Your task to perform on an android device: search for starred emails in the gmail app Image 0: 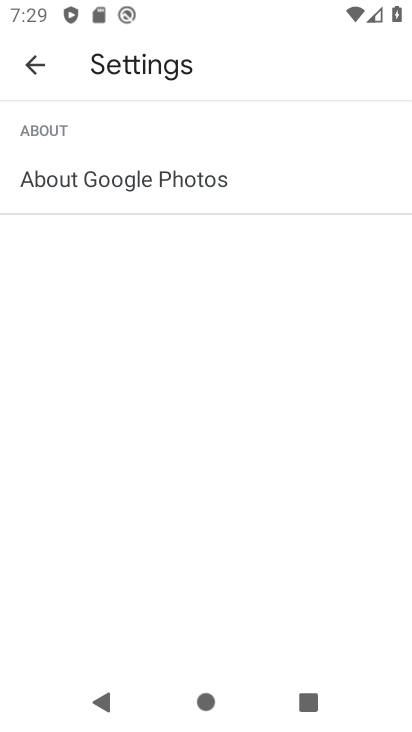
Step 0: press home button
Your task to perform on an android device: search for starred emails in the gmail app Image 1: 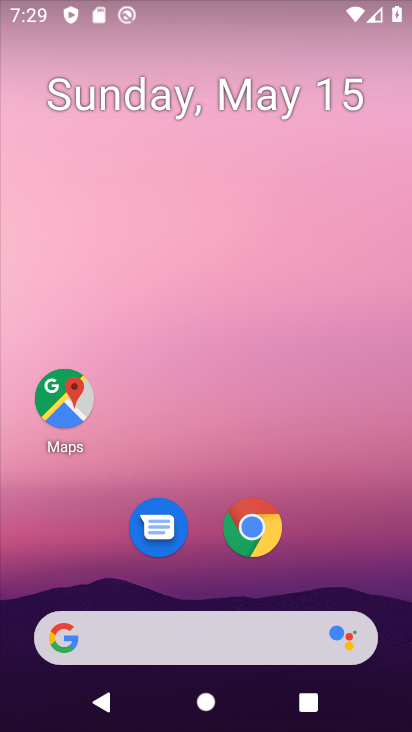
Step 1: drag from (165, 649) to (380, 4)
Your task to perform on an android device: search for starred emails in the gmail app Image 2: 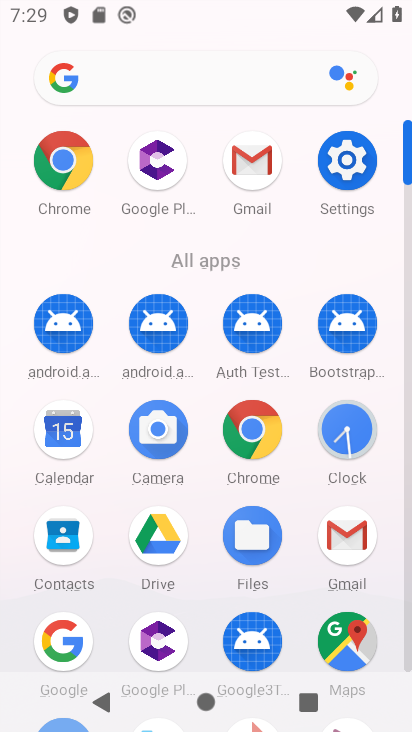
Step 2: click (257, 167)
Your task to perform on an android device: search for starred emails in the gmail app Image 3: 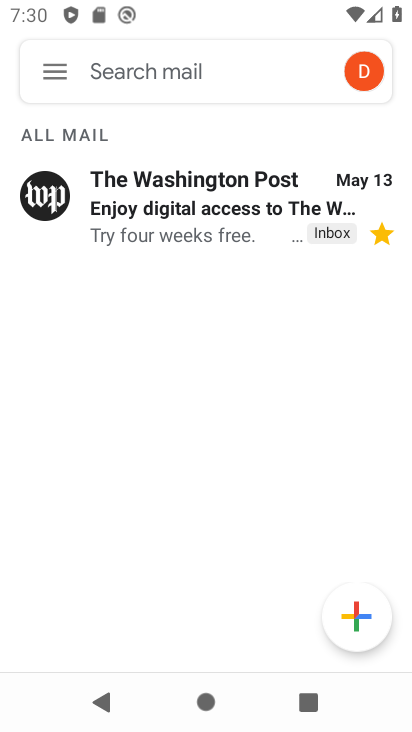
Step 3: click (57, 66)
Your task to perform on an android device: search for starred emails in the gmail app Image 4: 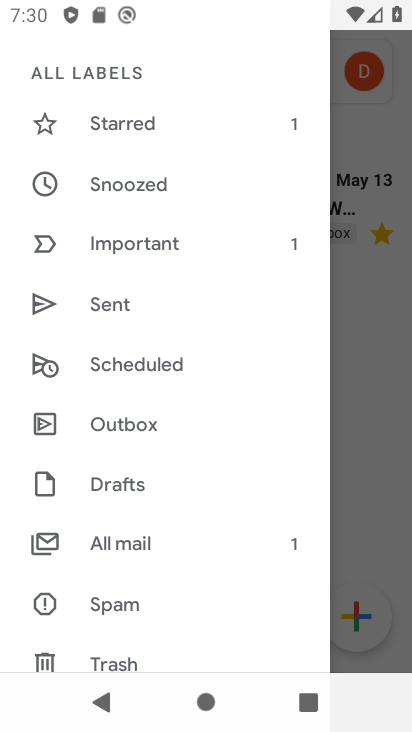
Step 4: click (138, 126)
Your task to perform on an android device: search for starred emails in the gmail app Image 5: 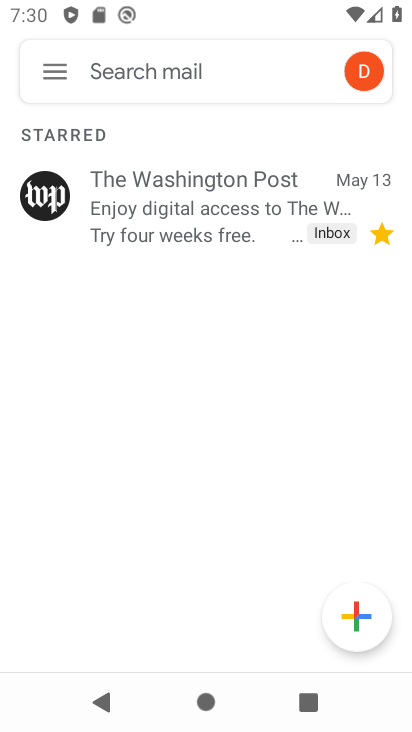
Step 5: task complete